Your task to perform on an android device: Open calendar and show me the first week of next month Image 0: 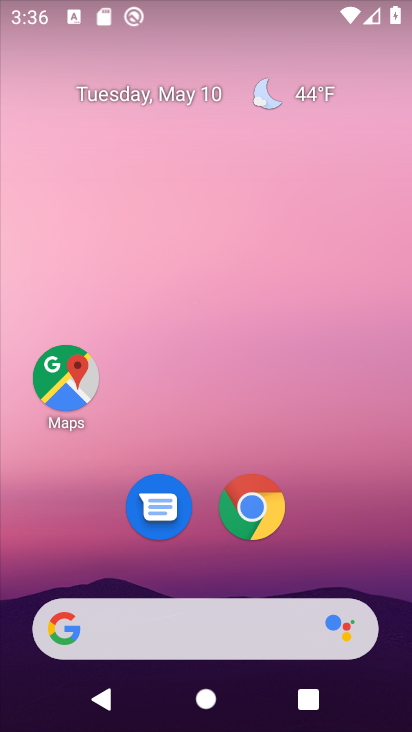
Step 0: drag from (180, 568) to (181, 204)
Your task to perform on an android device: Open calendar and show me the first week of next month Image 1: 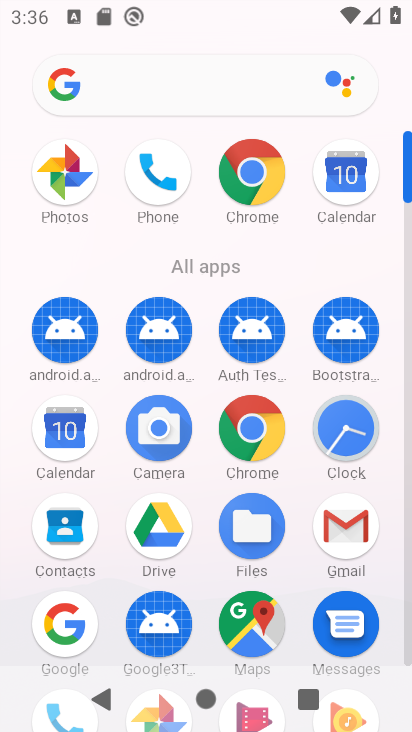
Step 1: click (69, 442)
Your task to perform on an android device: Open calendar and show me the first week of next month Image 2: 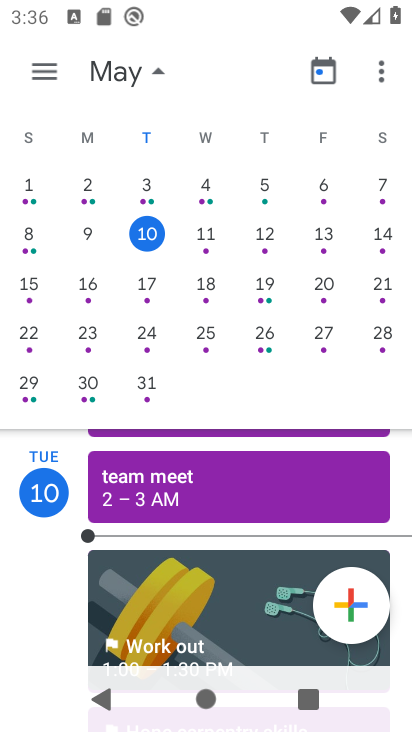
Step 2: drag from (397, 259) to (56, 271)
Your task to perform on an android device: Open calendar and show me the first week of next month Image 3: 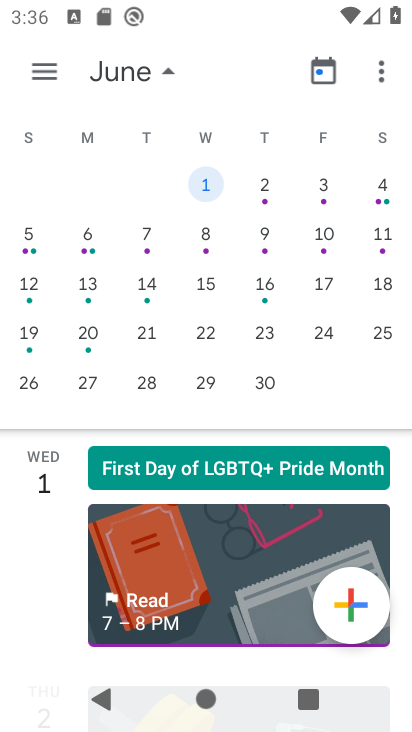
Step 3: click (24, 76)
Your task to perform on an android device: Open calendar and show me the first week of next month Image 4: 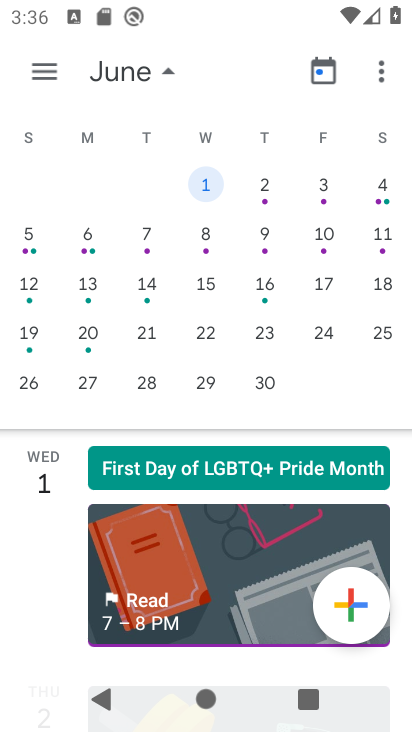
Step 4: click (44, 68)
Your task to perform on an android device: Open calendar and show me the first week of next month Image 5: 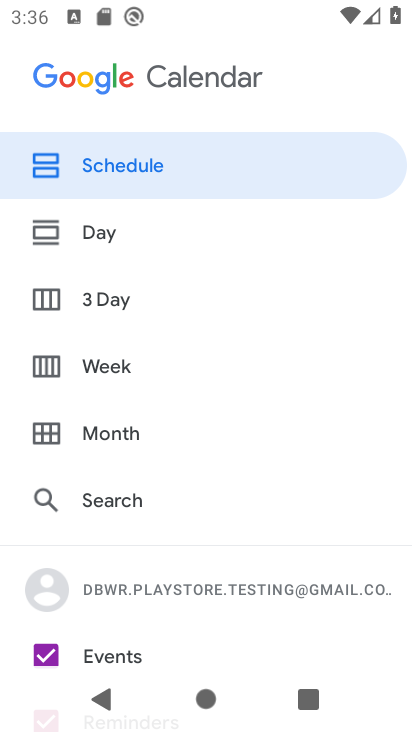
Step 5: click (125, 385)
Your task to perform on an android device: Open calendar and show me the first week of next month Image 6: 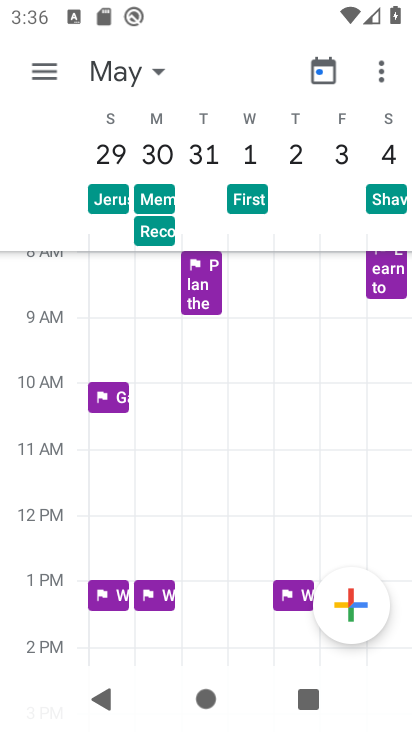
Step 6: task complete